Your task to perform on an android device: turn off location Image 0: 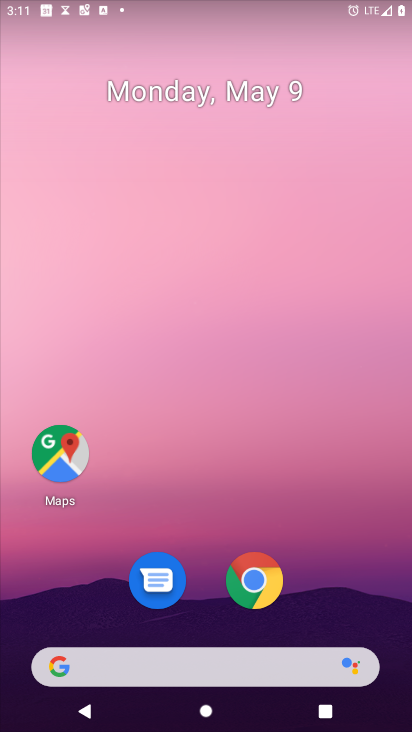
Step 0: drag from (308, 501) to (233, 131)
Your task to perform on an android device: turn off location Image 1: 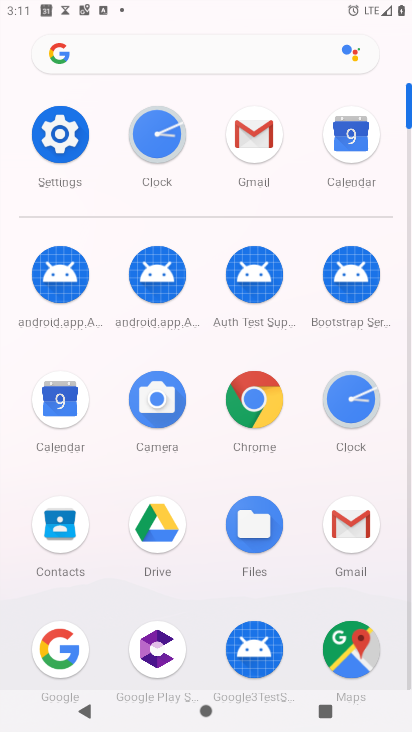
Step 1: click (64, 122)
Your task to perform on an android device: turn off location Image 2: 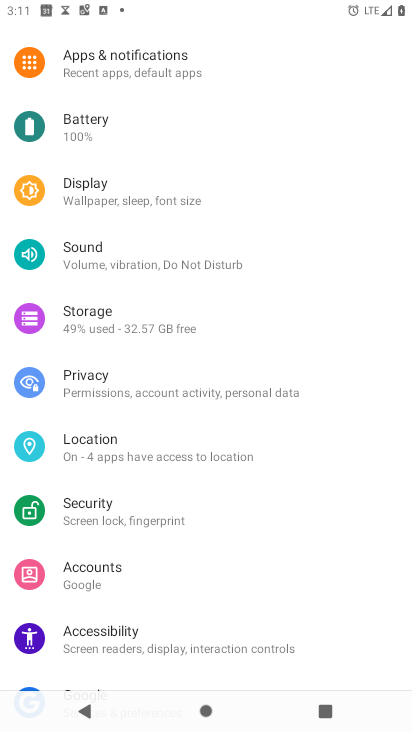
Step 2: click (174, 424)
Your task to perform on an android device: turn off location Image 3: 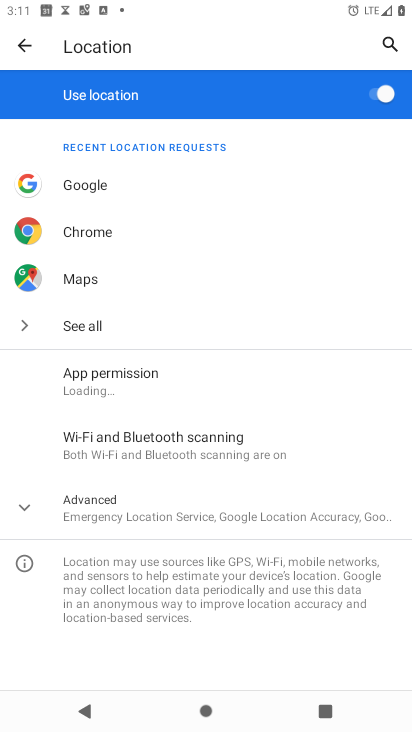
Step 3: click (381, 89)
Your task to perform on an android device: turn off location Image 4: 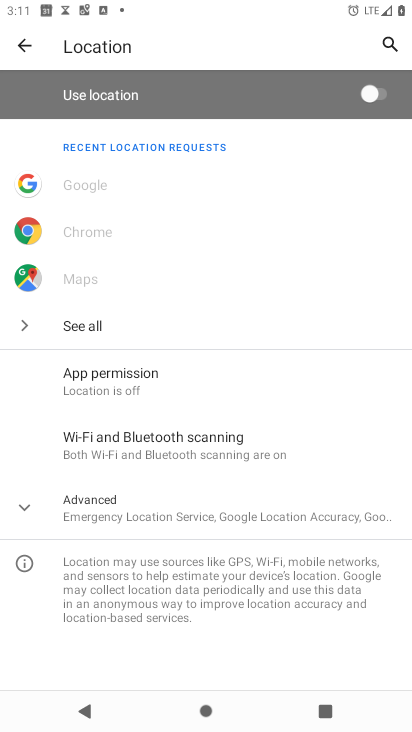
Step 4: task complete